Your task to perform on an android device: turn on notifications settings in the gmail app Image 0: 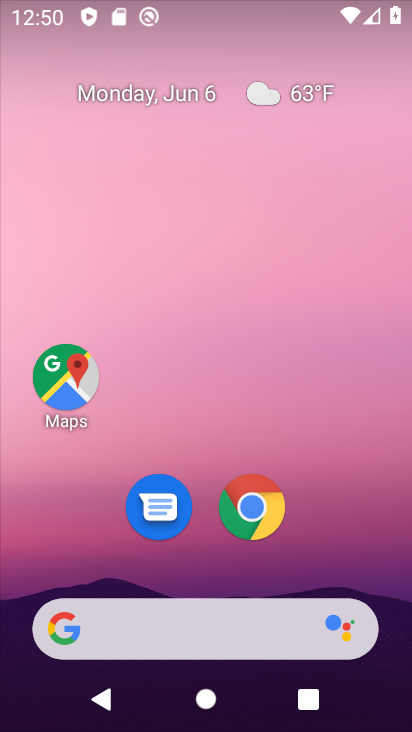
Step 0: click (239, 513)
Your task to perform on an android device: turn on notifications settings in the gmail app Image 1: 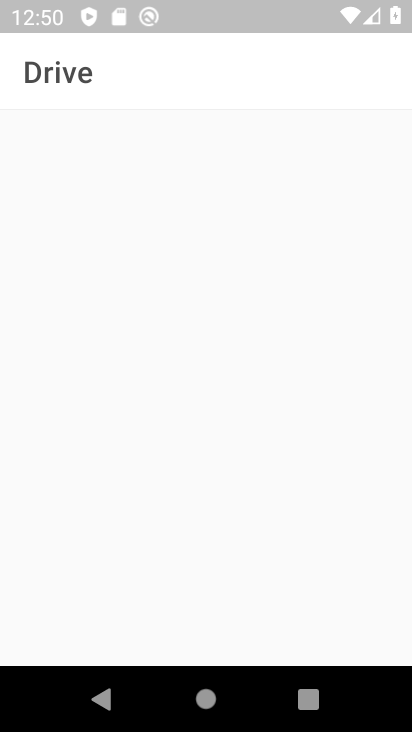
Step 1: click (239, 513)
Your task to perform on an android device: turn on notifications settings in the gmail app Image 2: 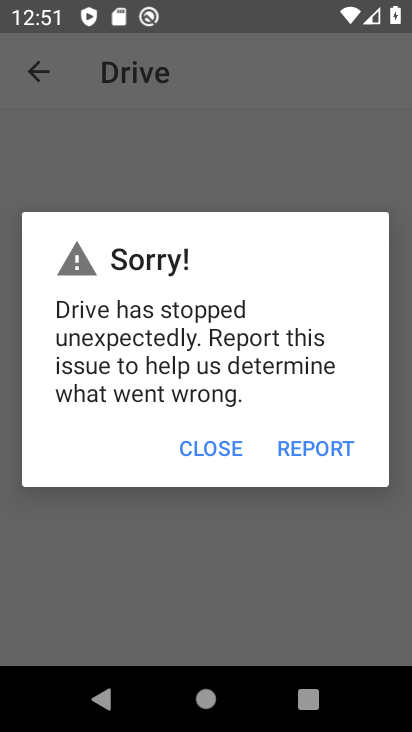
Step 2: press home button
Your task to perform on an android device: turn on notifications settings in the gmail app Image 3: 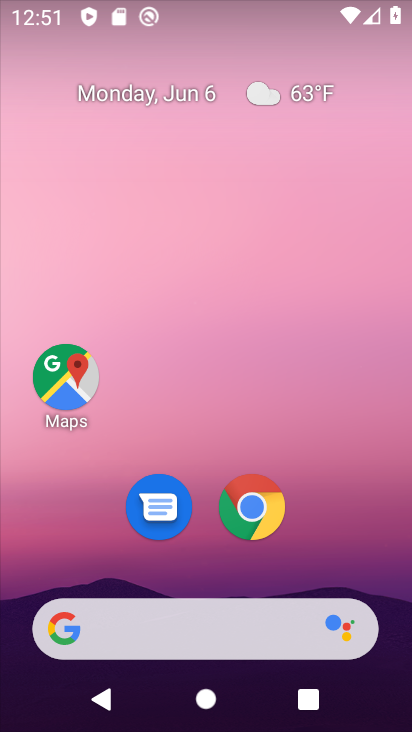
Step 3: drag from (113, 592) to (118, 107)
Your task to perform on an android device: turn on notifications settings in the gmail app Image 4: 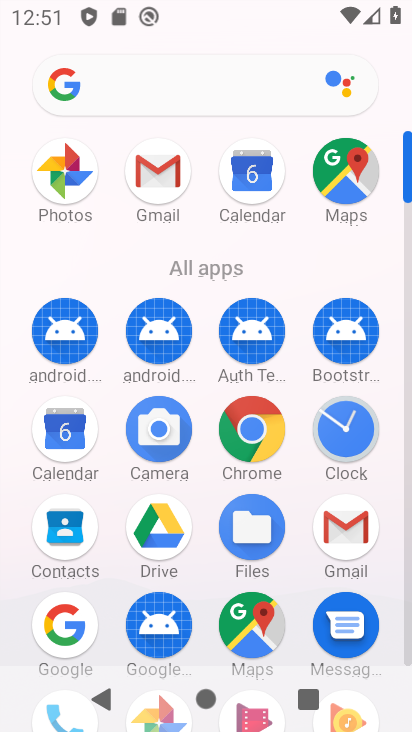
Step 4: click (361, 538)
Your task to perform on an android device: turn on notifications settings in the gmail app Image 5: 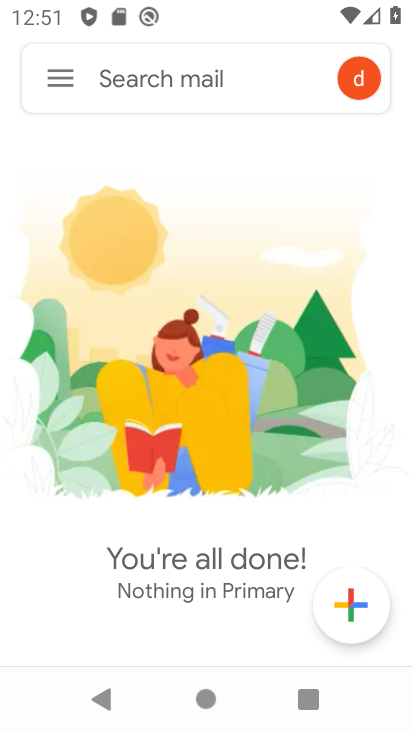
Step 5: click (64, 68)
Your task to perform on an android device: turn on notifications settings in the gmail app Image 6: 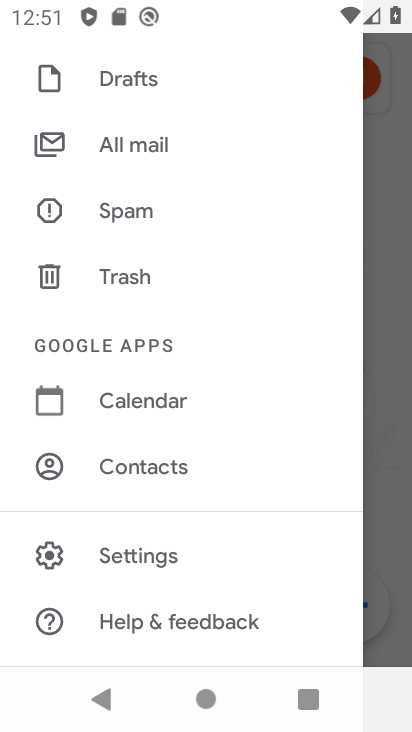
Step 6: click (131, 560)
Your task to perform on an android device: turn on notifications settings in the gmail app Image 7: 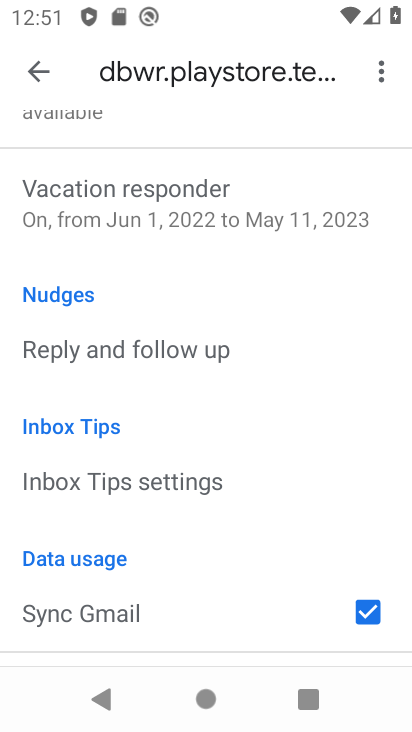
Step 7: click (23, 57)
Your task to perform on an android device: turn on notifications settings in the gmail app Image 8: 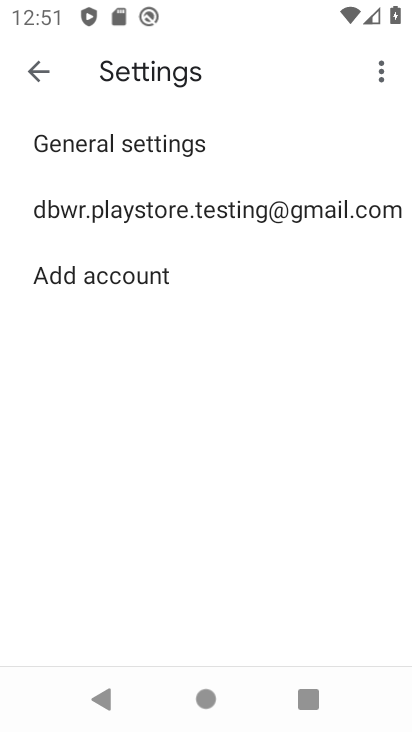
Step 8: click (117, 161)
Your task to perform on an android device: turn on notifications settings in the gmail app Image 9: 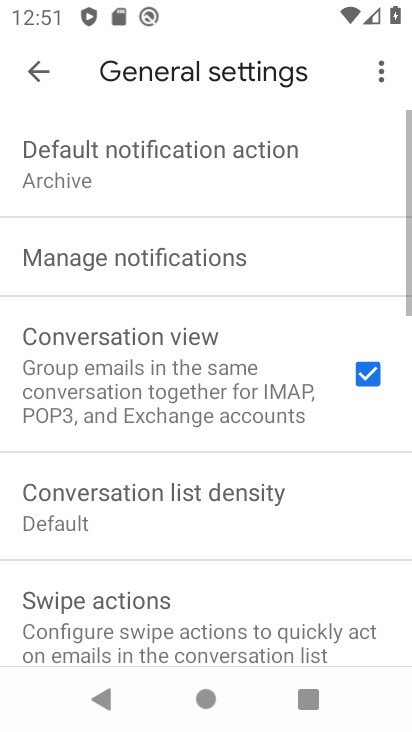
Step 9: click (160, 260)
Your task to perform on an android device: turn on notifications settings in the gmail app Image 10: 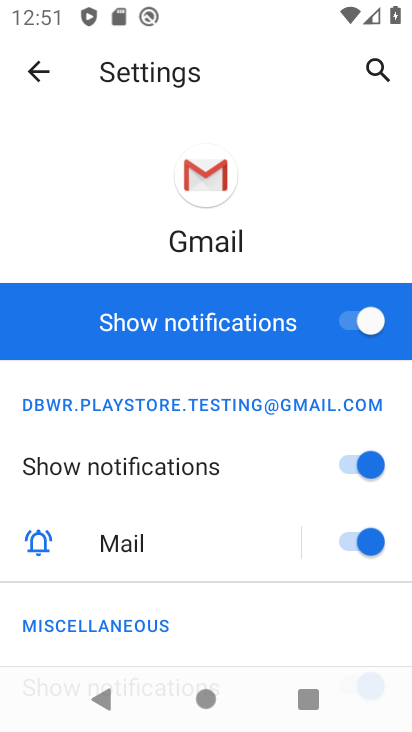
Step 10: task complete